Your task to perform on an android device: Go to Wikipedia Image 0: 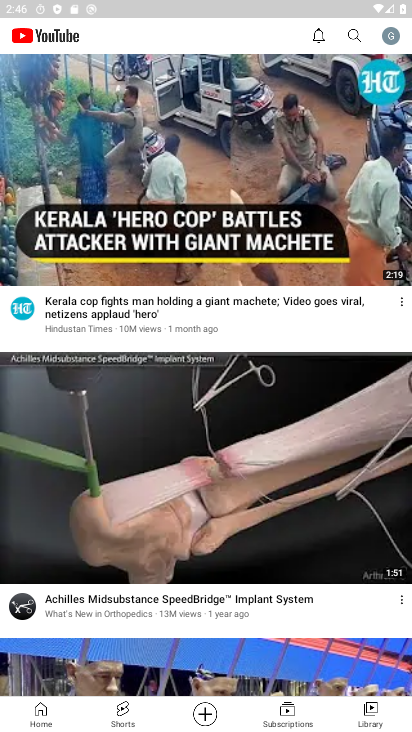
Step 0: press home button
Your task to perform on an android device: Go to Wikipedia Image 1: 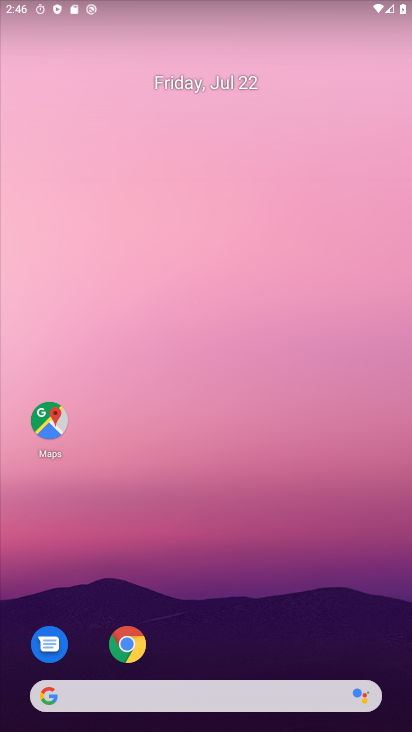
Step 1: click (36, 697)
Your task to perform on an android device: Go to Wikipedia Image 2: 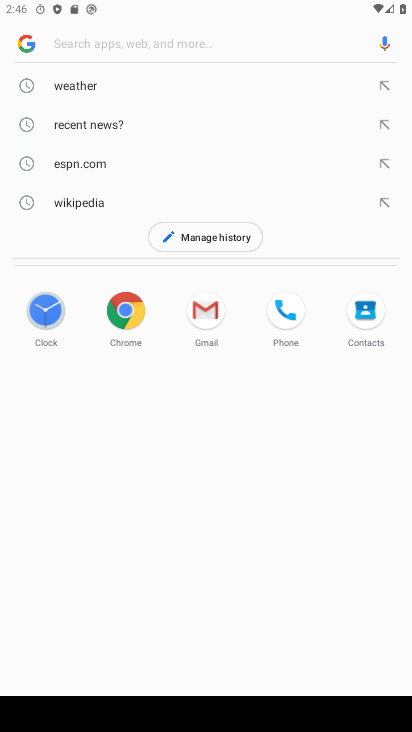
Step 2: click (66, 202)
Your task to perform on an android device: Go to Wikipedia Image 3: 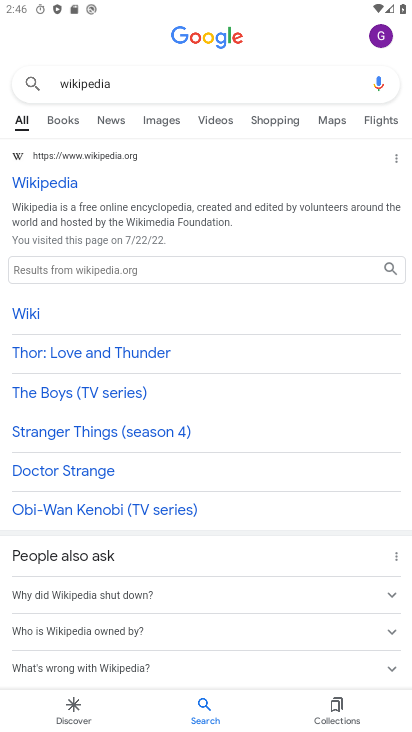
Step 3: click (33, 187)
Your task to perform on an android device: Go to Wikipedia Image 4: 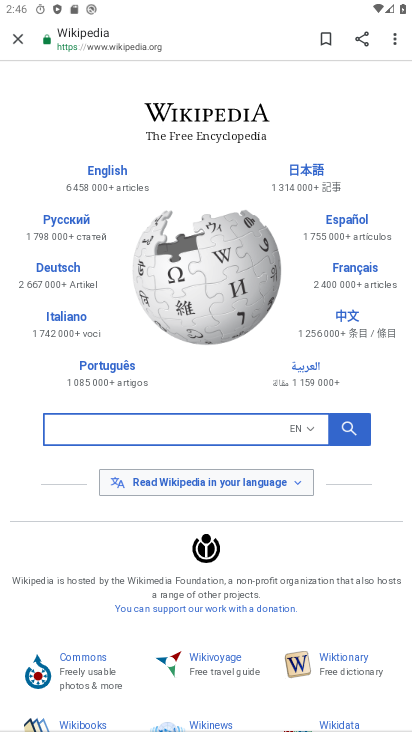
Step 4: task complete